Your task to perform on an android device: Open settings Image 0: 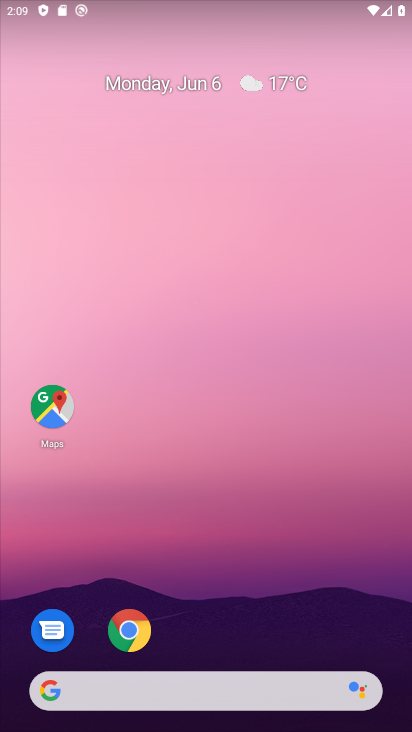
Step 0: drag from (176, 601) to (227, 8)
Your task to perform on an android device: Open settings Image 1: 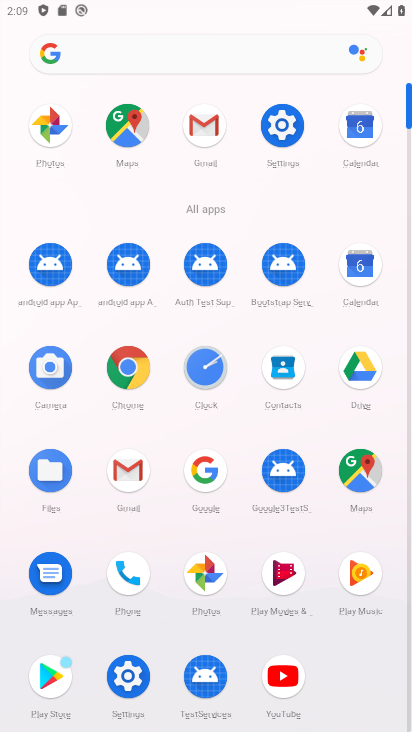
Step 1: click (130, 667)
Your task to perform on an android device: Open settings Image 2: 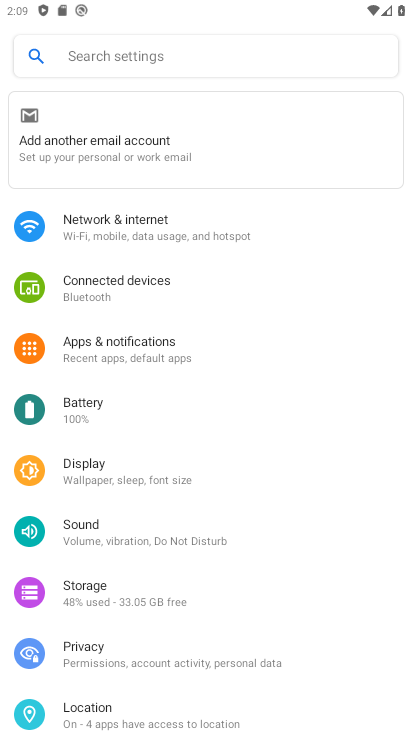
Step 2: task complete